Your task to perform on an android device: turn on airplane mode Image 0: 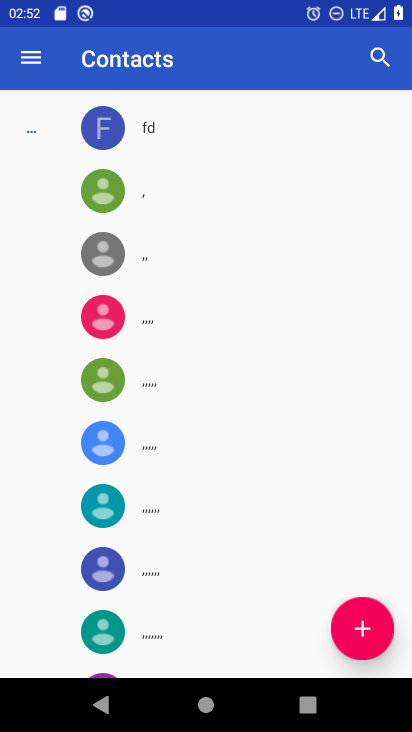
Step 0: press home button
Your task to perform on an android device: turn on airplane mode Image 1: 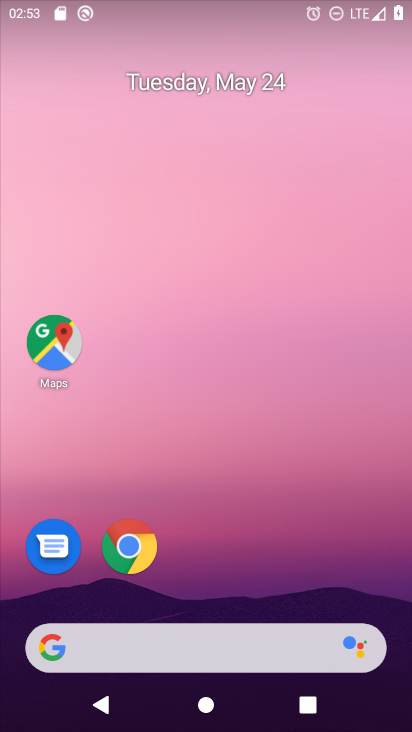
Step 1: drag from (207, 617) to (234, 78)
Your task to perform on an android device: turn on airplane mode Image 2: 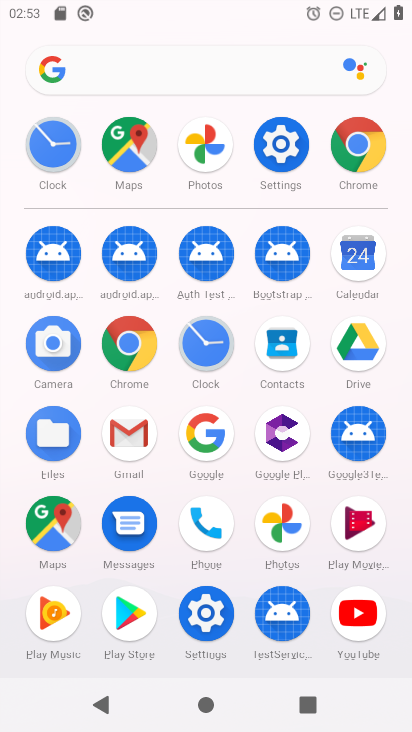
Step 2: drag from (300, 3) to (248, 574)
Your task to perform on an android device: turn on airplane mode Image 3: 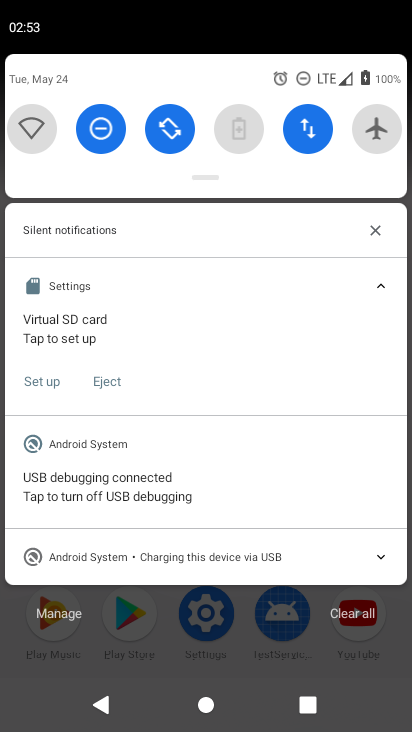
Step 3: drag from (306, 172) to (251, 610)
Your task to perform on an android device: turn on airplane mode Image 4: 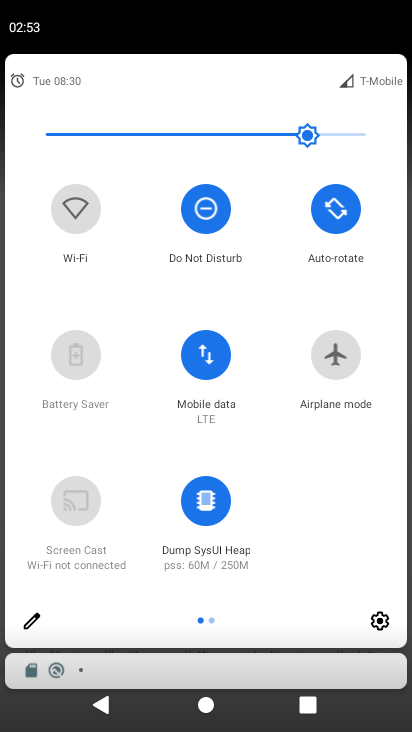
Step 4: click (338, 343)
Your task to perform on an android device: turn on airplane mode Image 5: 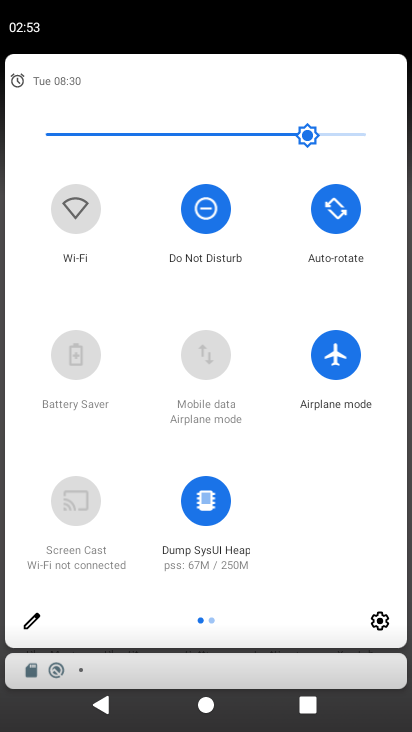
Step 5: task complete